Your task to perform on an android device: Clear all items from cart on ebay. Search for amazon basics triple a on ebay, select the first entry, add it to the cart, then select checkout. Image 0: 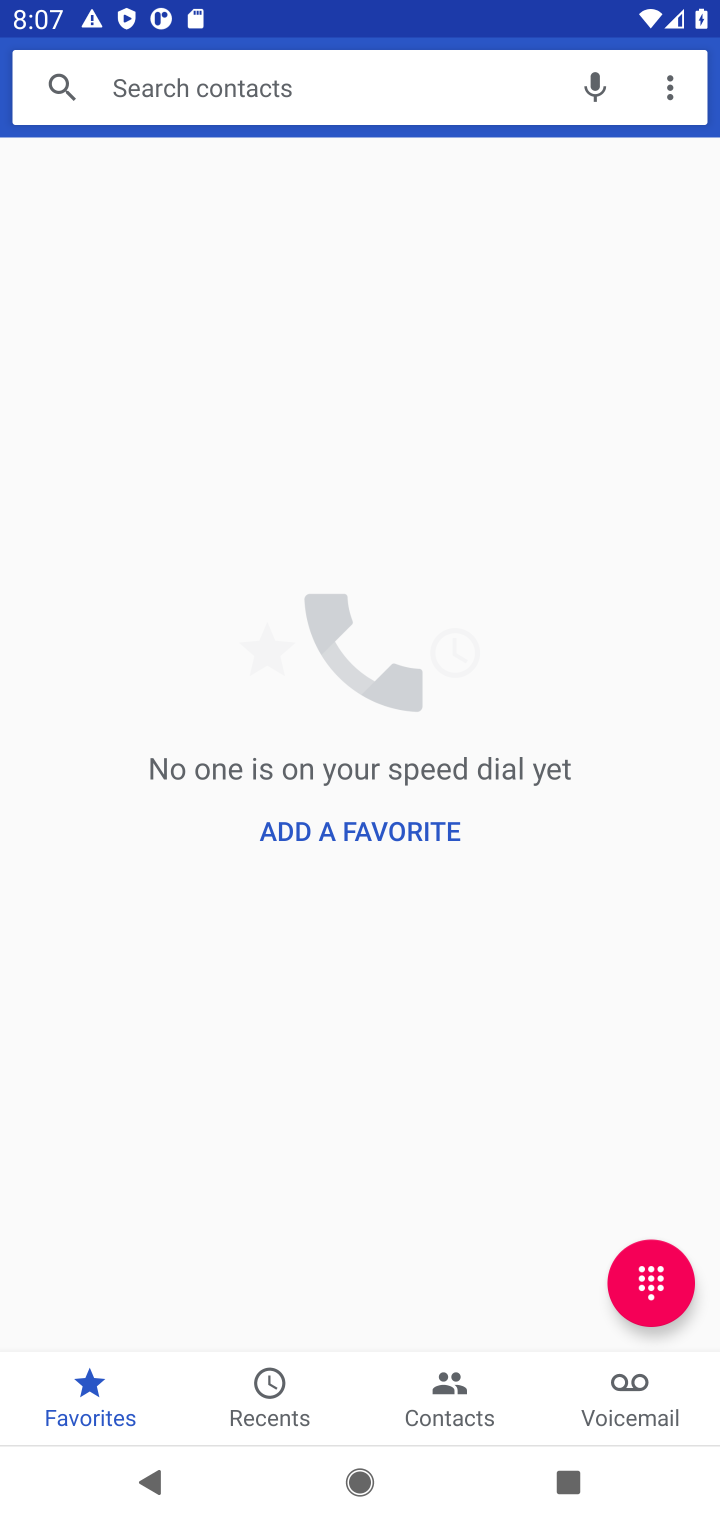
Step 0: press home button
Your task to perform on an android device: Clear all items from cart on ebay. Search for amazon basics triple a on ebay, select the first entry, add it to the cart, then select checkout. Image 1: 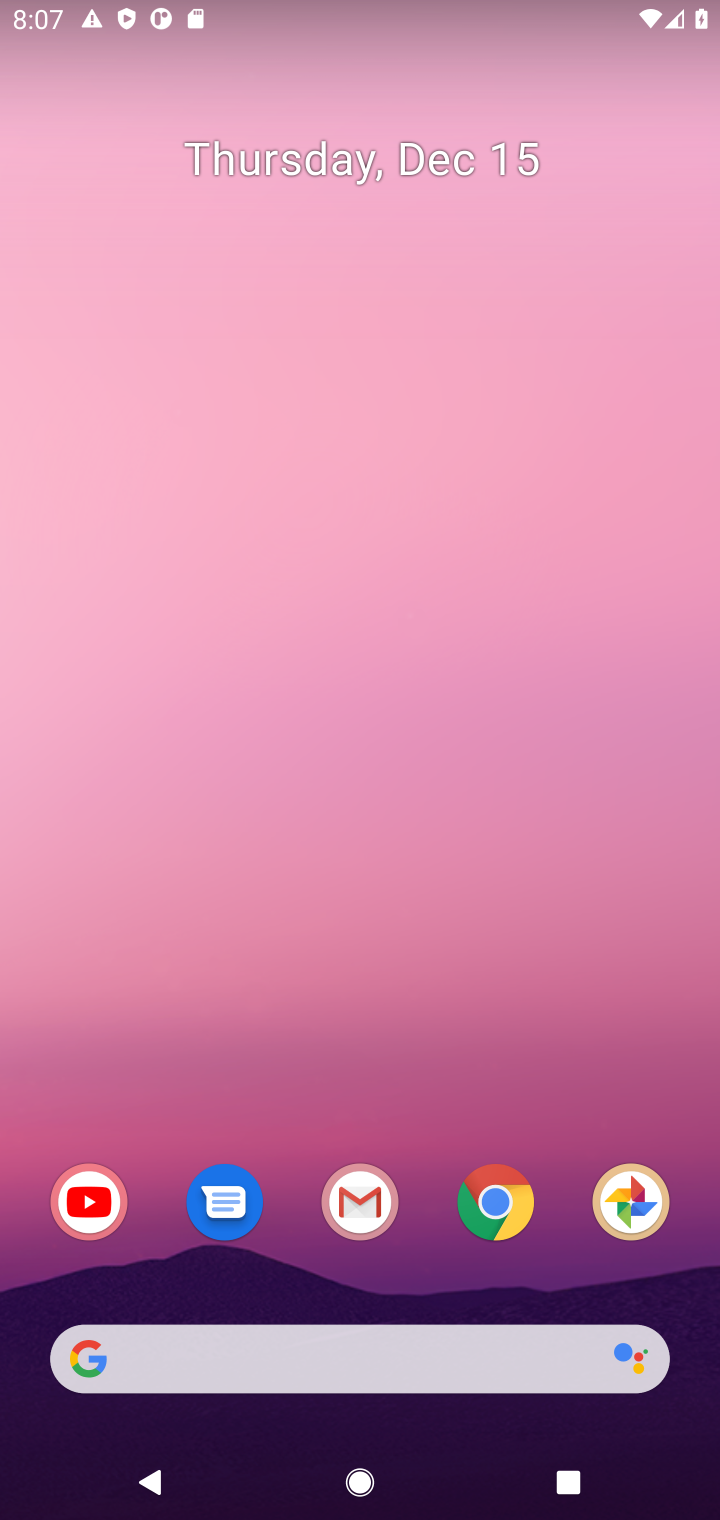
Step 1: click (490, 1205)
Your task to perform on an android device: Clear all items from cart on ebay. Search for amazon basics triple a on ebay, select the first entry, add it to the cart, then select checkout. Image 2: 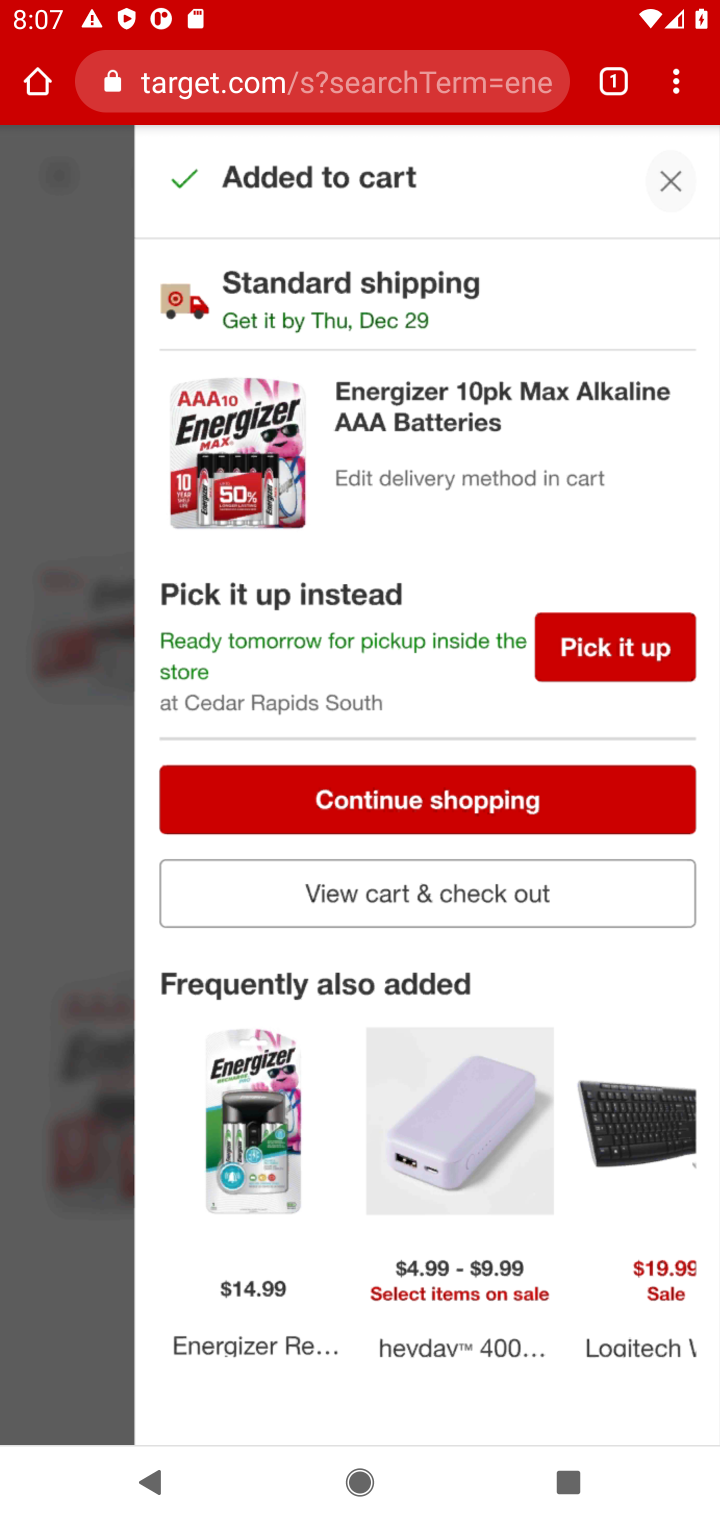
Step 2: click (348, 83)
Your task to perform on an android device: Clear all items from cart on ebay. Search for amazon basics triple a on ebay, select the first entry, add it to the cart, then select checkout. Image 3: 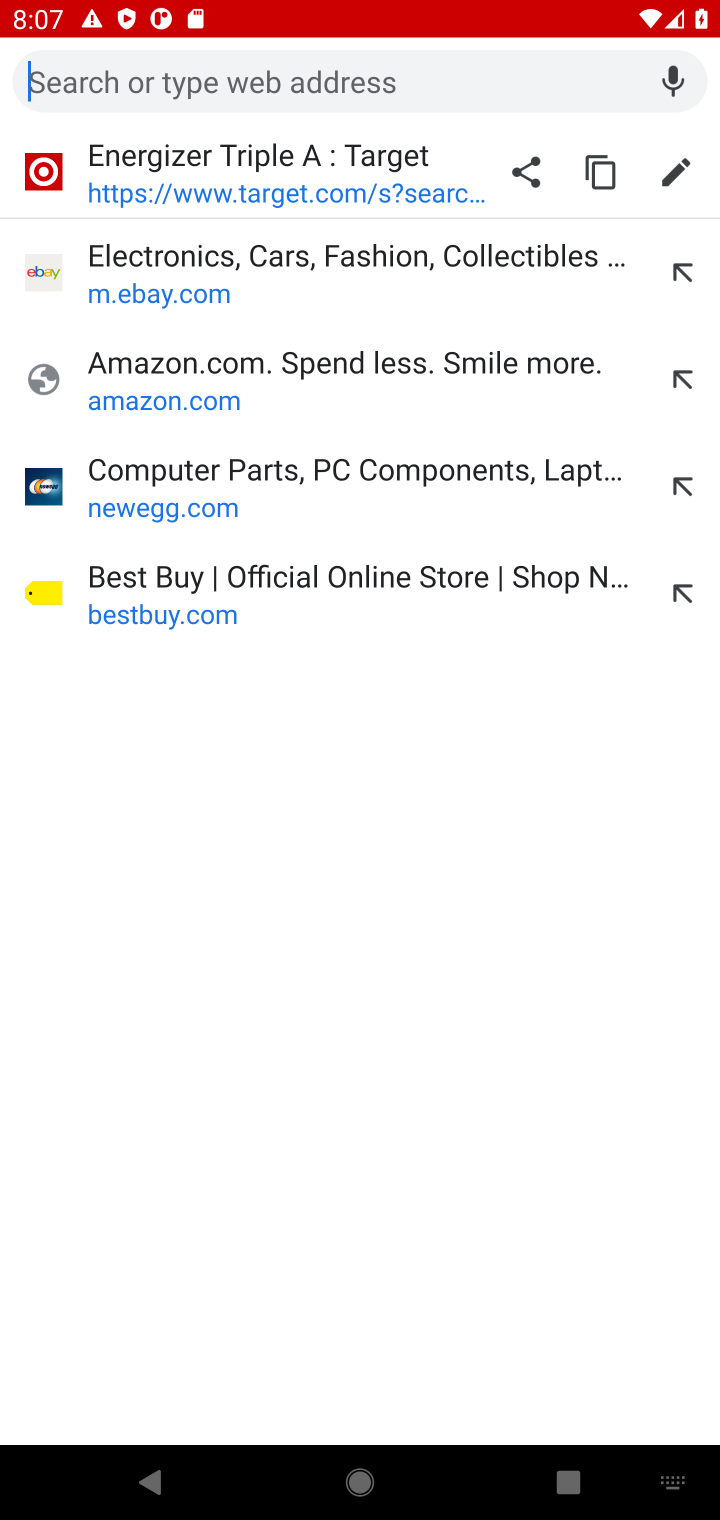
Step 3: click (178, 280)
Your task to perform on an android device: Clear all items from cart on ebay. Search for amazon basics triple a on ebay, select the first entry, add it to the cart, then select checkout. Image 4: 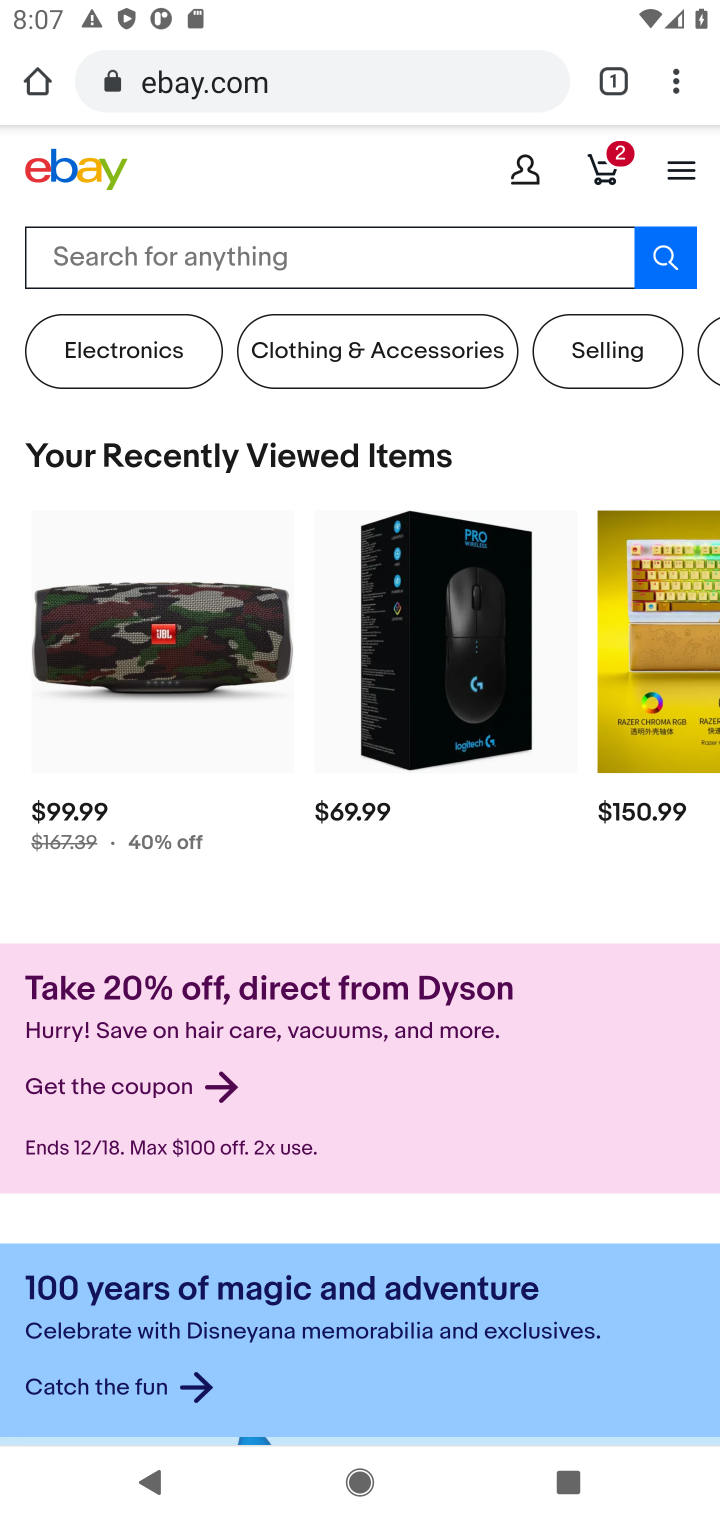
Step 4: click (602, 160)
Your task to perform on an android device: Clear all items from cart on ebay. Search for amazon basics triple a on ebay, select the first entry, add it to the cart, then select checkout. Image 5: 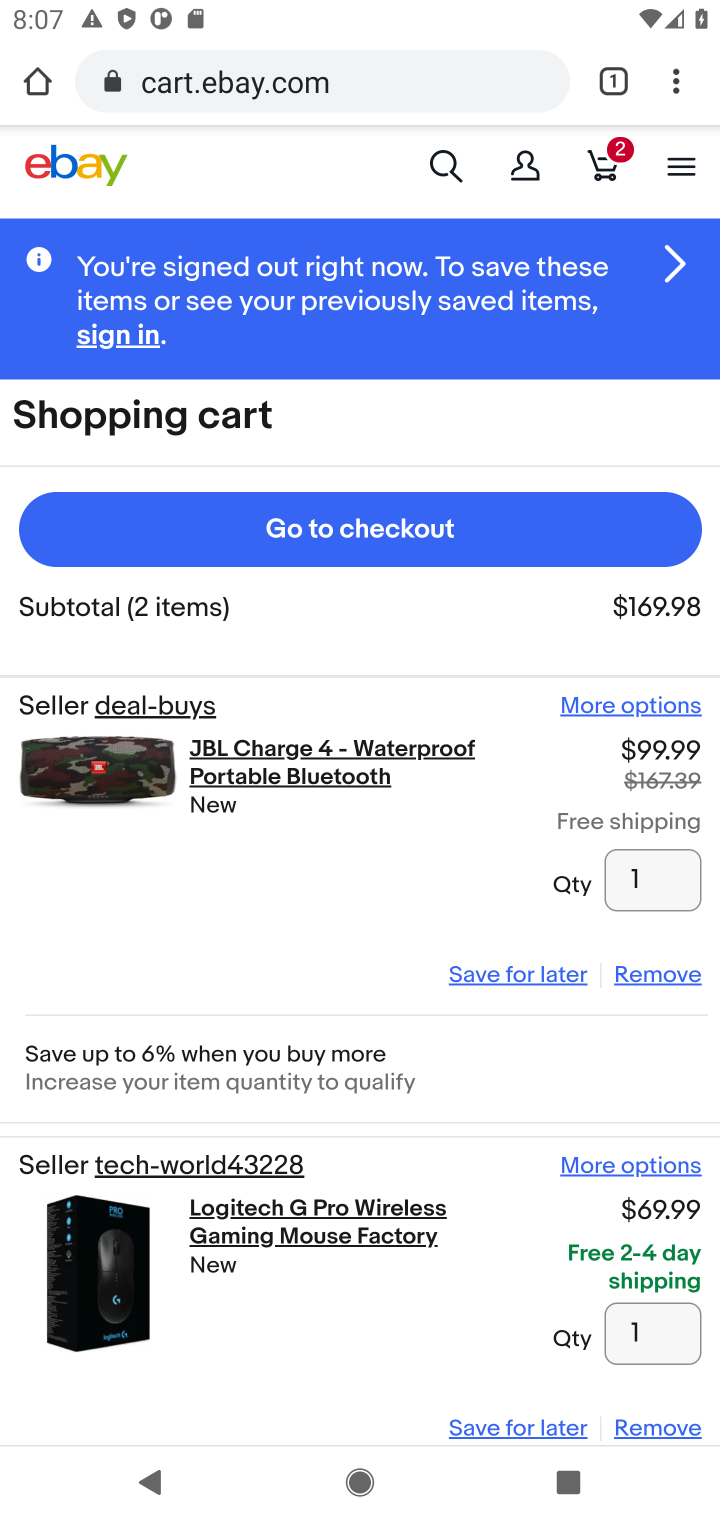
Step 5: click (634, 969)
Your task to perform on an android device: Clear all items from cart on ebay. Search for amazon basics triple a on ebay, select the first entry, add it to the cart, then select checkout. Image 6: 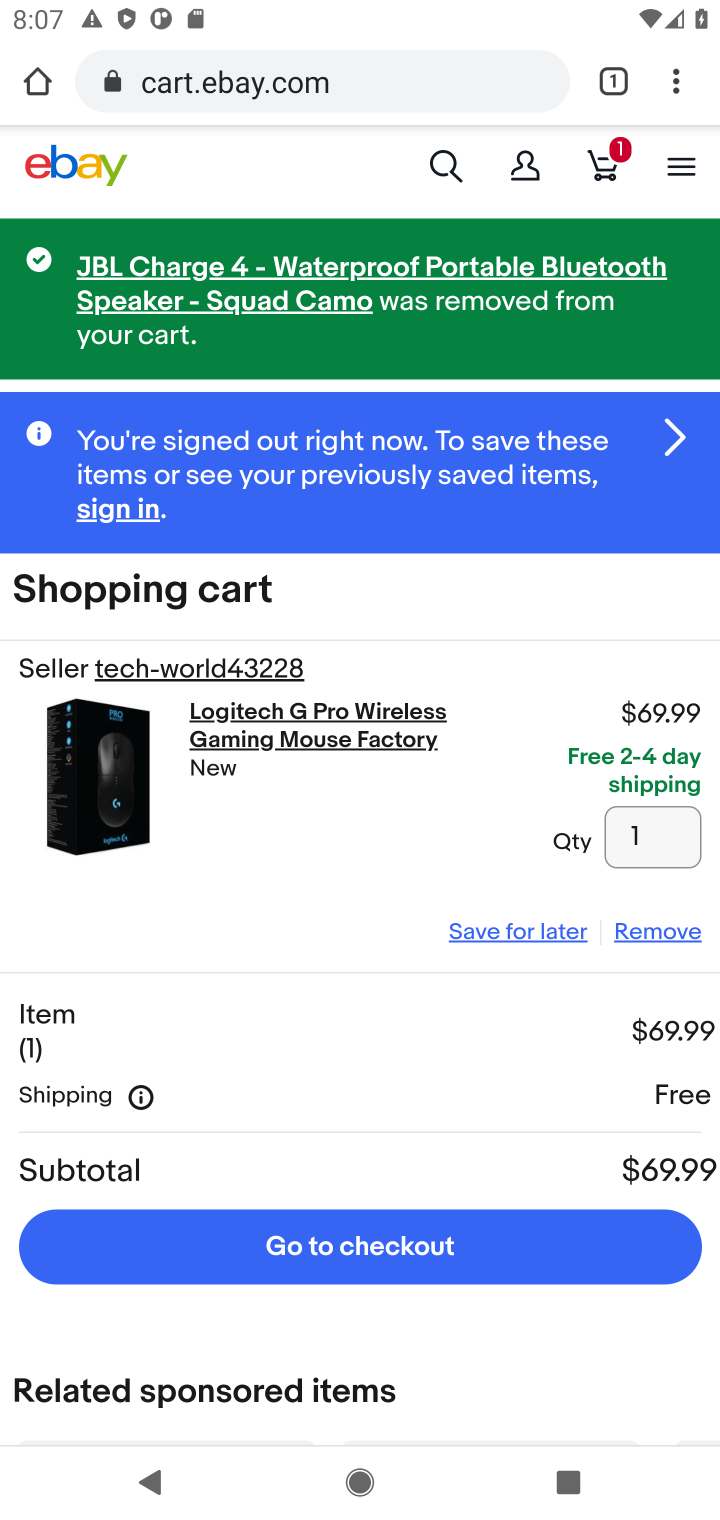
Step 6: click (656, 937)
Your task to perform on an android device: Clear all items from cart on ebay. Search for amazon basics triple a on ebay, select the first entry, add it to the cart, then select checkout. Image 7: 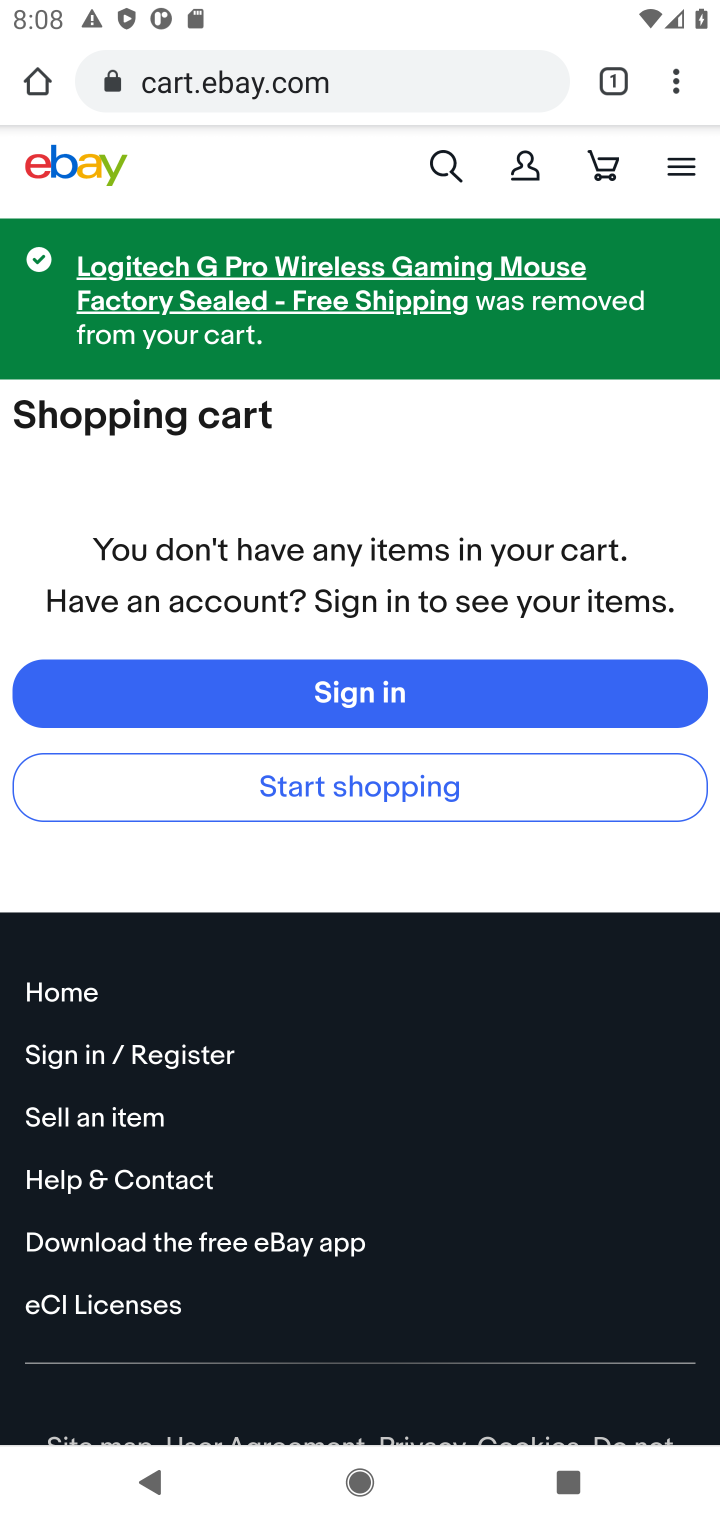
Step 7: click (437, 170)
Your task to perform on an android device: Clear all items from cart on ebay. Search for amazon basics triple a on ebay, select the first entry, add it to the cart, then select checkout. Image 8: 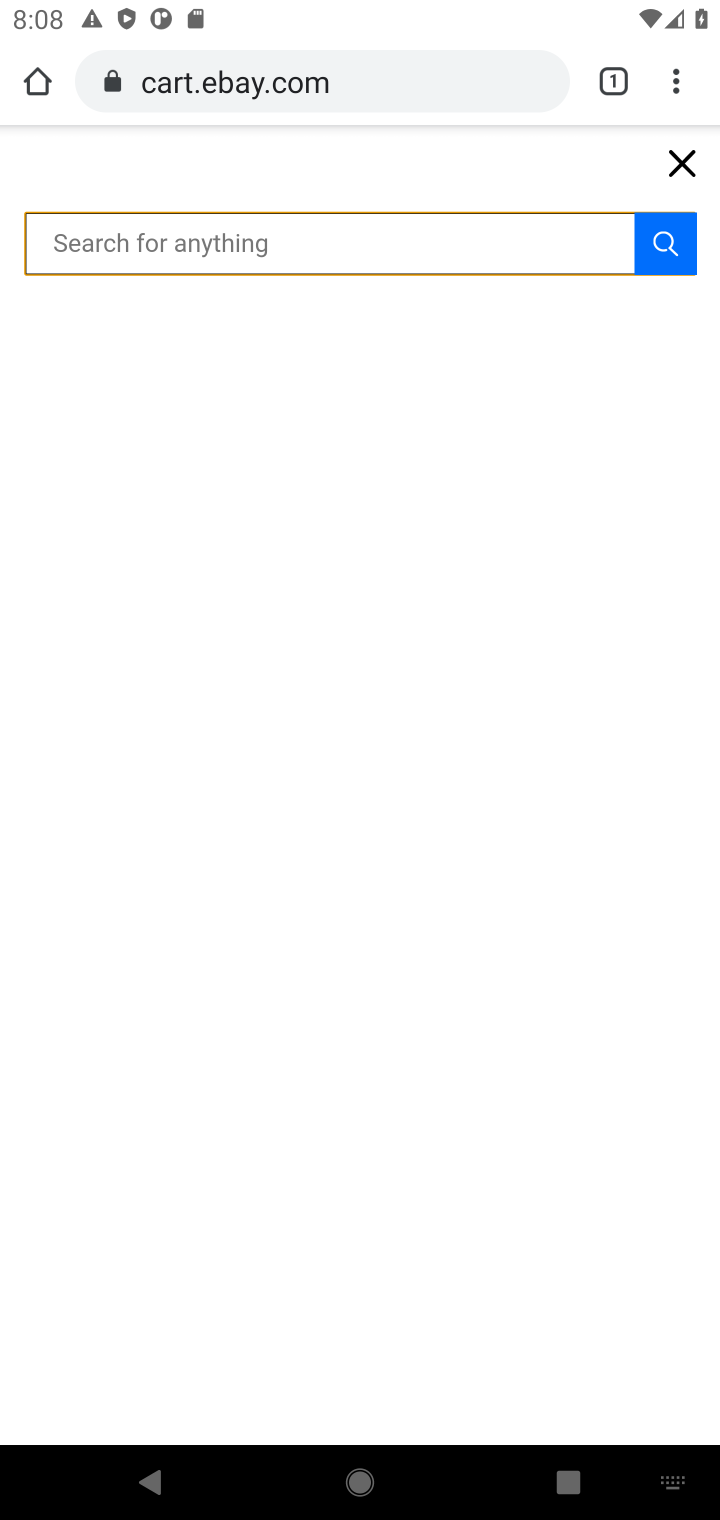
Step 8: type " amazon basics triple a"
Your task to perform on an android device: Clear all items from cart on ebay. Search for amazon basics triple a on ebay, select the first entry, add it to the cart, then select checkout. Image 9: 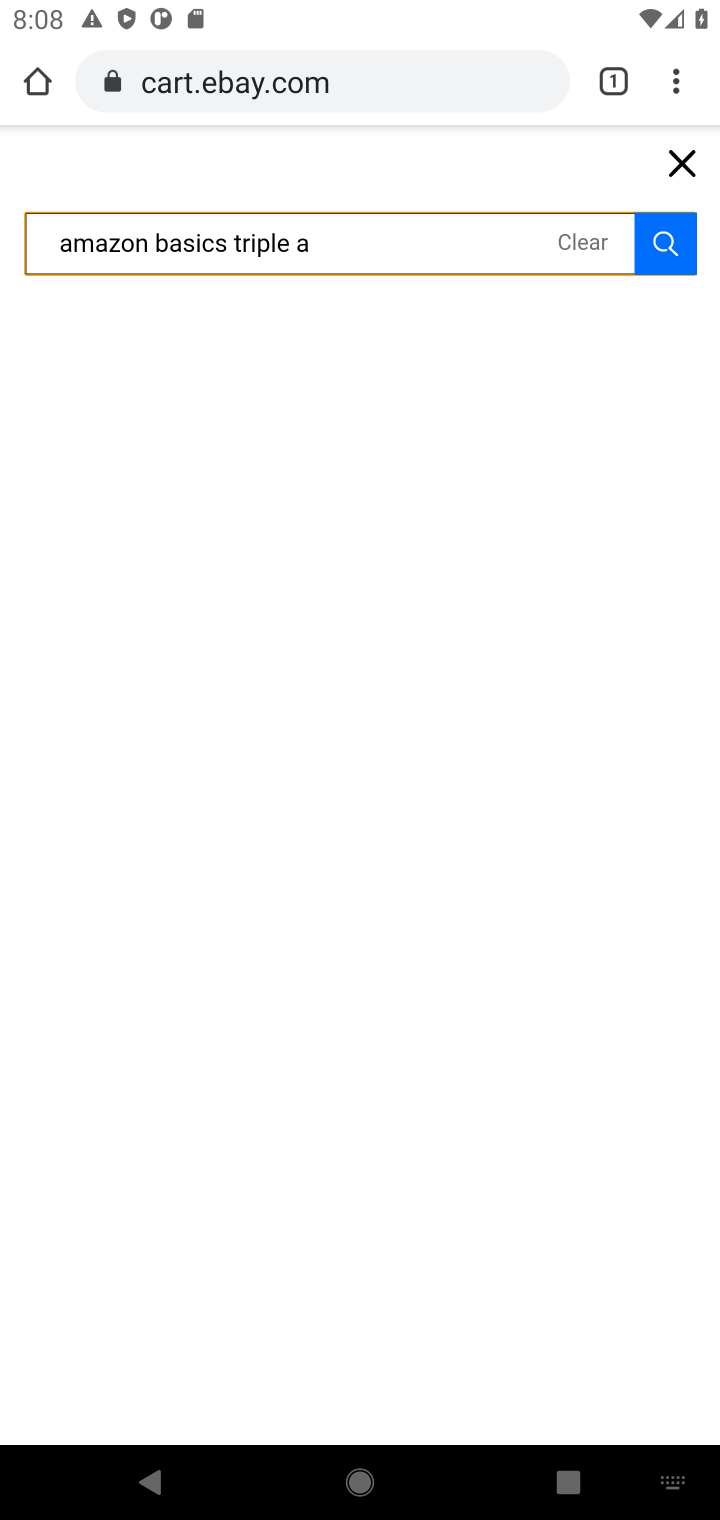
Step 9: click (652, 227)
Your task to perform on an android device: Clear all items from cart on ebay. Search for amazon basics triple a on ebay, select the first entry, add it to the cart, then select checkout. Image 10: 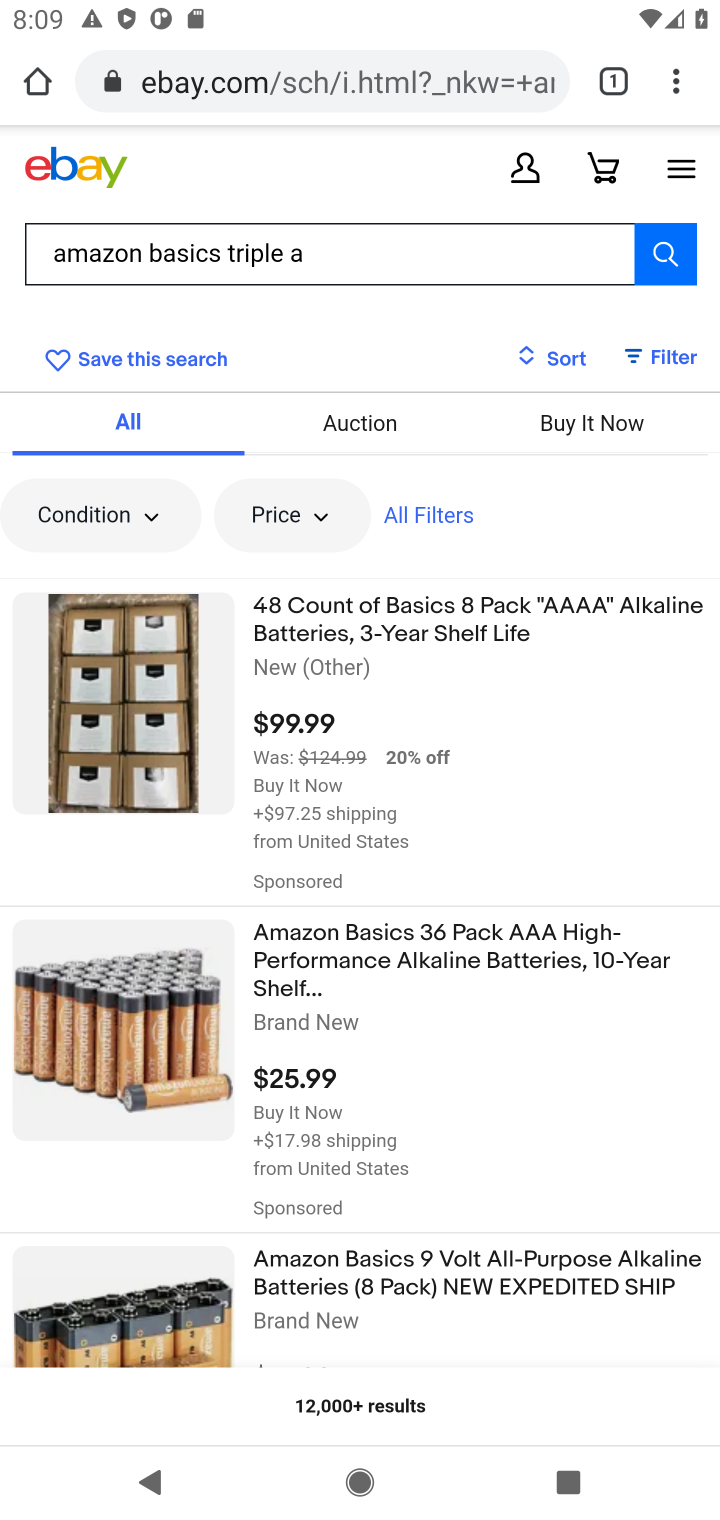
Step 10: task complete